Your task to perform on an android device: Clear the cart on amazon. Add "dell xps" to the cart on amazon, then select checkout. Image 0: 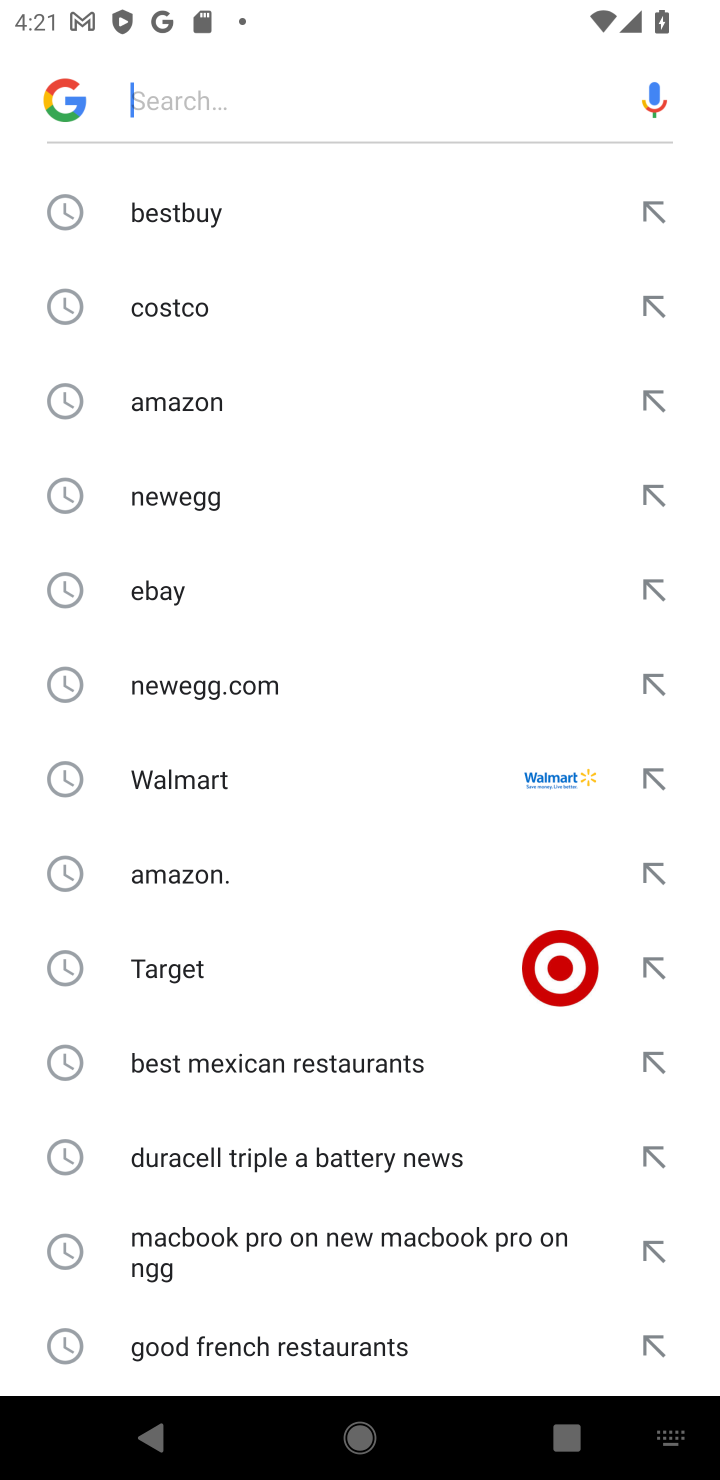
Step 0: type "amazon.com"
Your task to perform on an android device: Clear the cart on amazon. Add "dell xps" to the cart on amazon, then select checkout. Image 1: 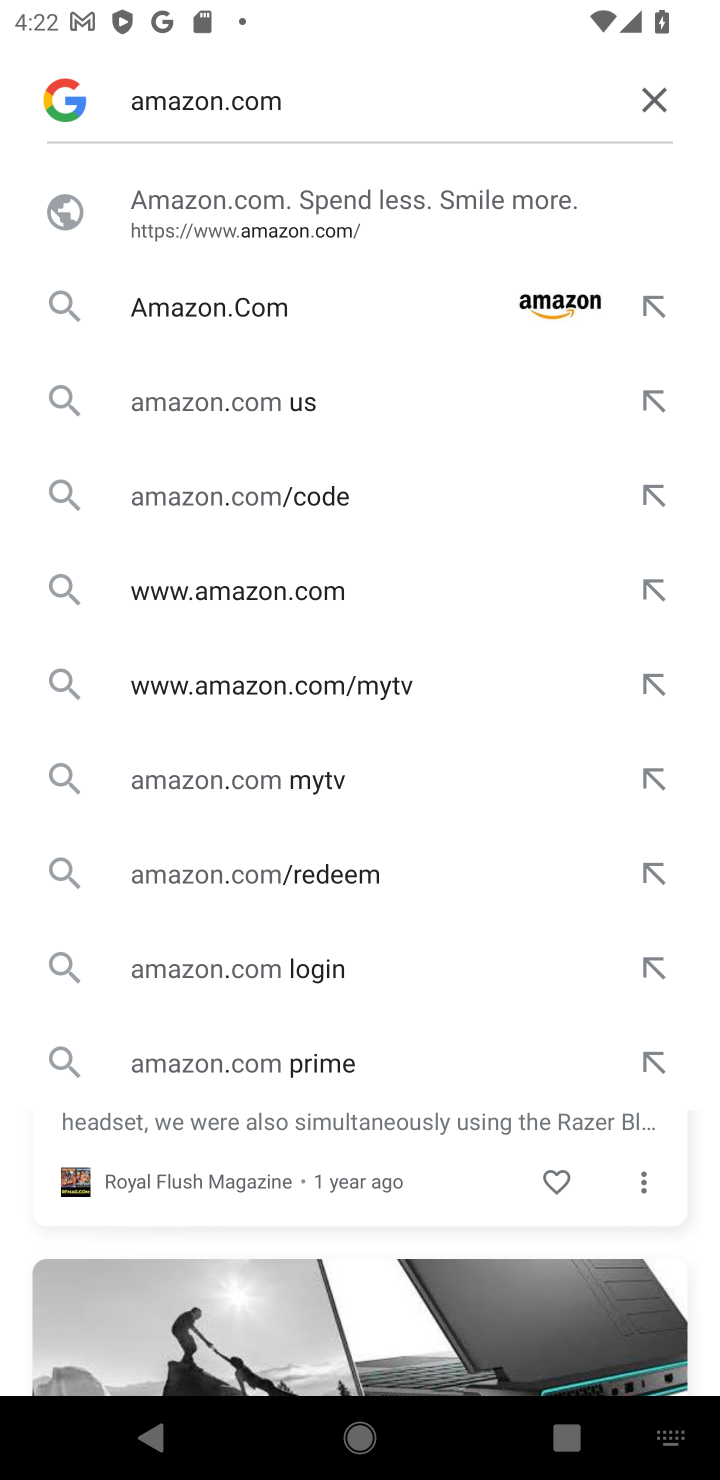
Step 1: press enter
Your task to perform on an android device: Clear the cart on amazon. Add "dell xps" to the cart on amazon, then select checkout. Image 2: 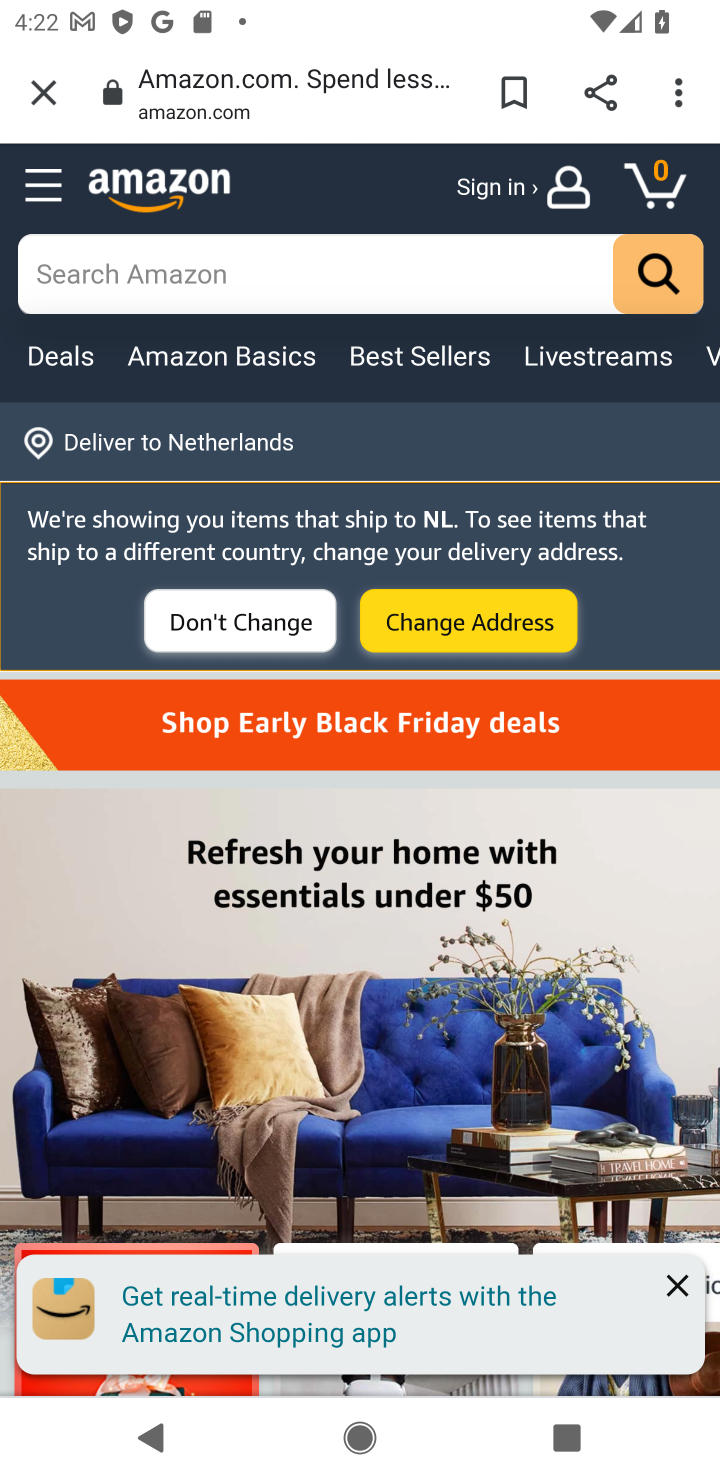
Step 2: click (651, 186)
Your task to perform on an android device: Clear the cart on amazon. Add "dell xps" to the cart on amazon, then select checkout. Image 3: 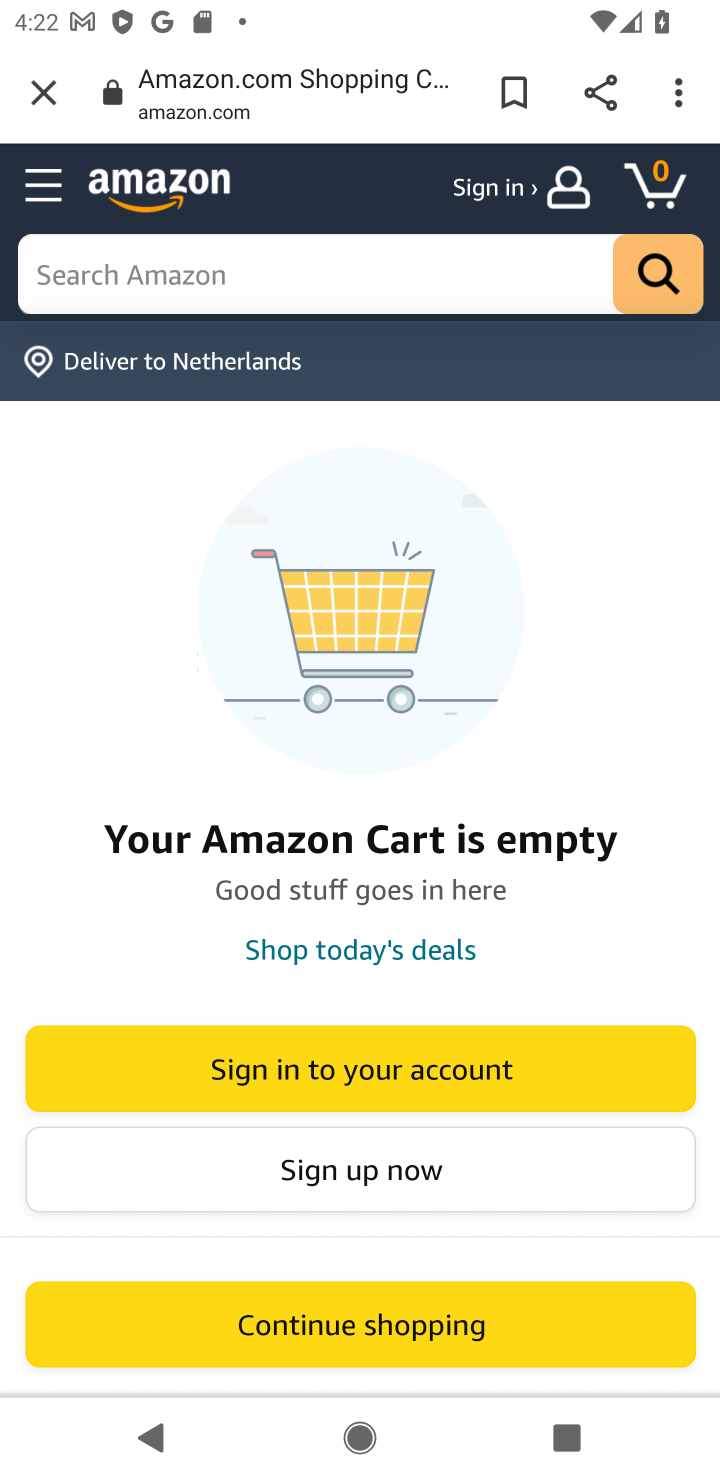
Step 3: click (339, 272)
Your task to perform on an android device: Clear the cart on amazon. Add "dell xps" to the cart on amazon, then select checkout. Image 4: 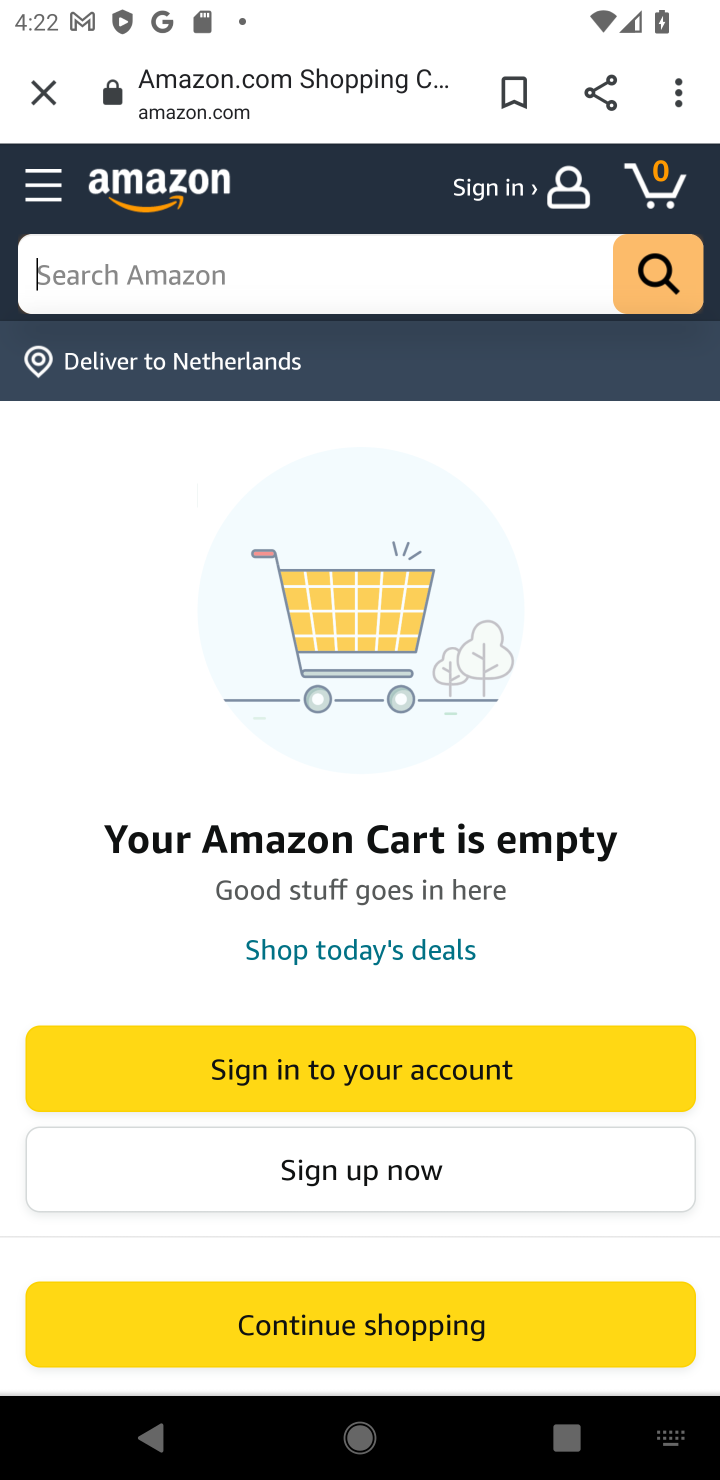
Step 4: type "dell xps"
Your task to perform on an android device: Clear the cart on amazon. Add "dell xps" to the cart on amazon, then select checkout. Image 5: 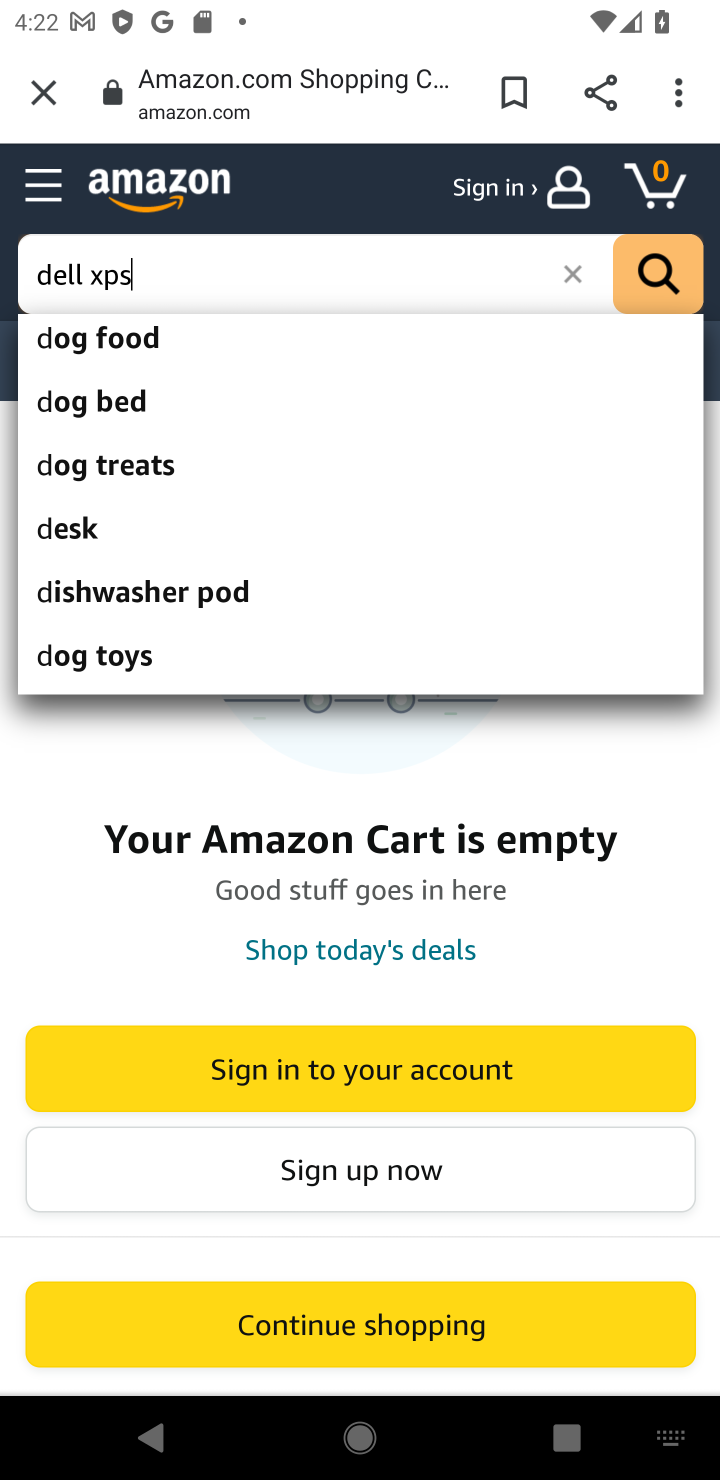
Step 5: press enter
Your task to perform on an android device: Clear the cart on amazon. Add "dell xps" to the cart on amazon, then select checkout. Image 6: 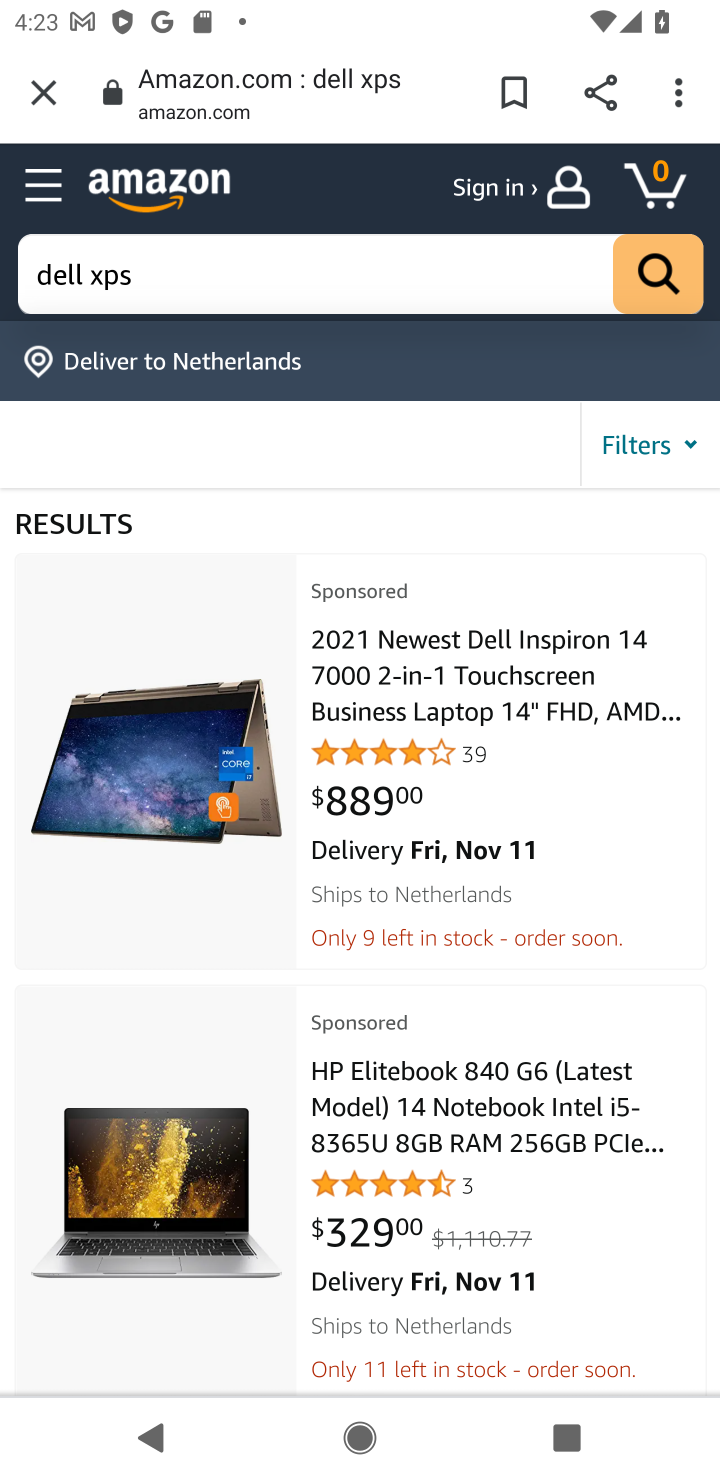
Step 6: drag from (509, 1311) to (540, 309)
Your task to perform on an android device: Clear the cart on amazon. Add "dell xps" to the cart on amazon, then select checkout. Image 7: 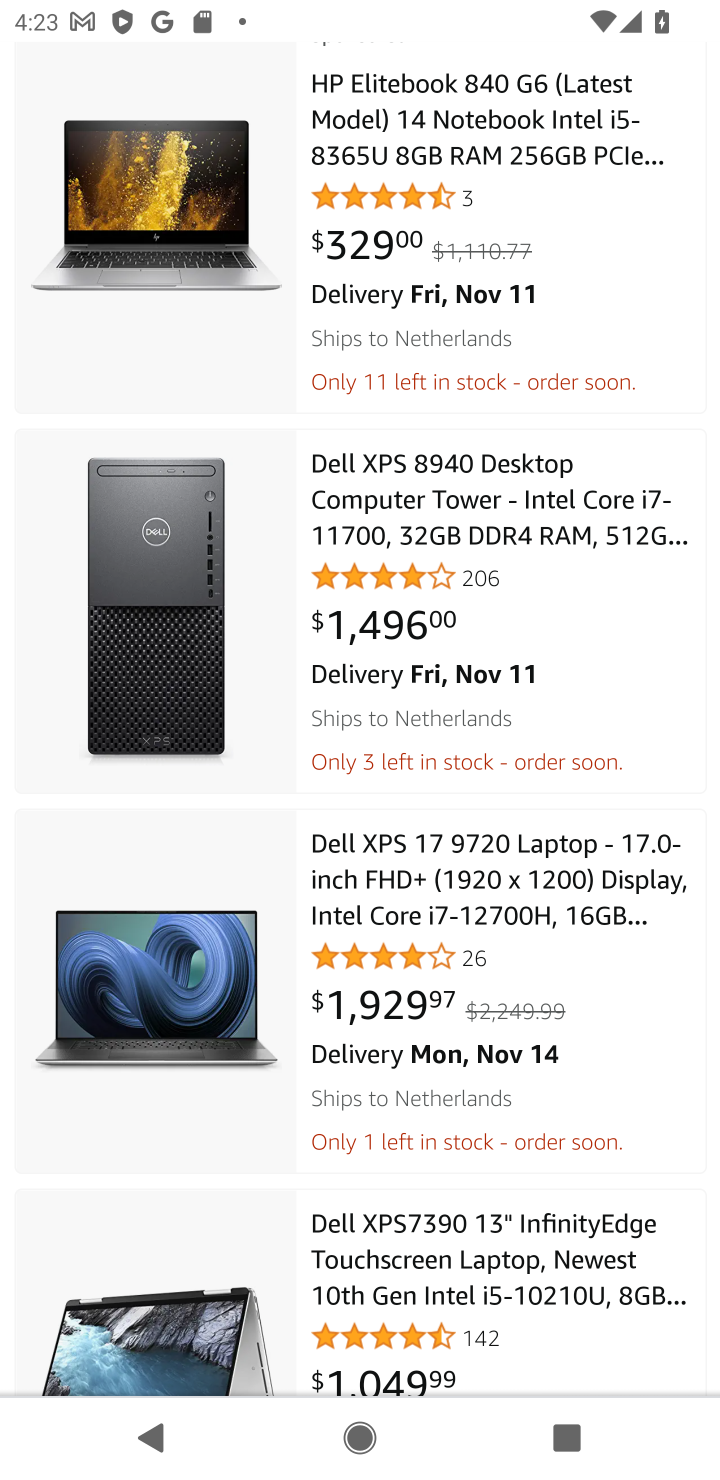
Step 7: click (424, 527)
Your task to perform on an android device: Clear the cart on amazon. Add "dell xps" to the cart on amazon, then select checkout. Image 8: 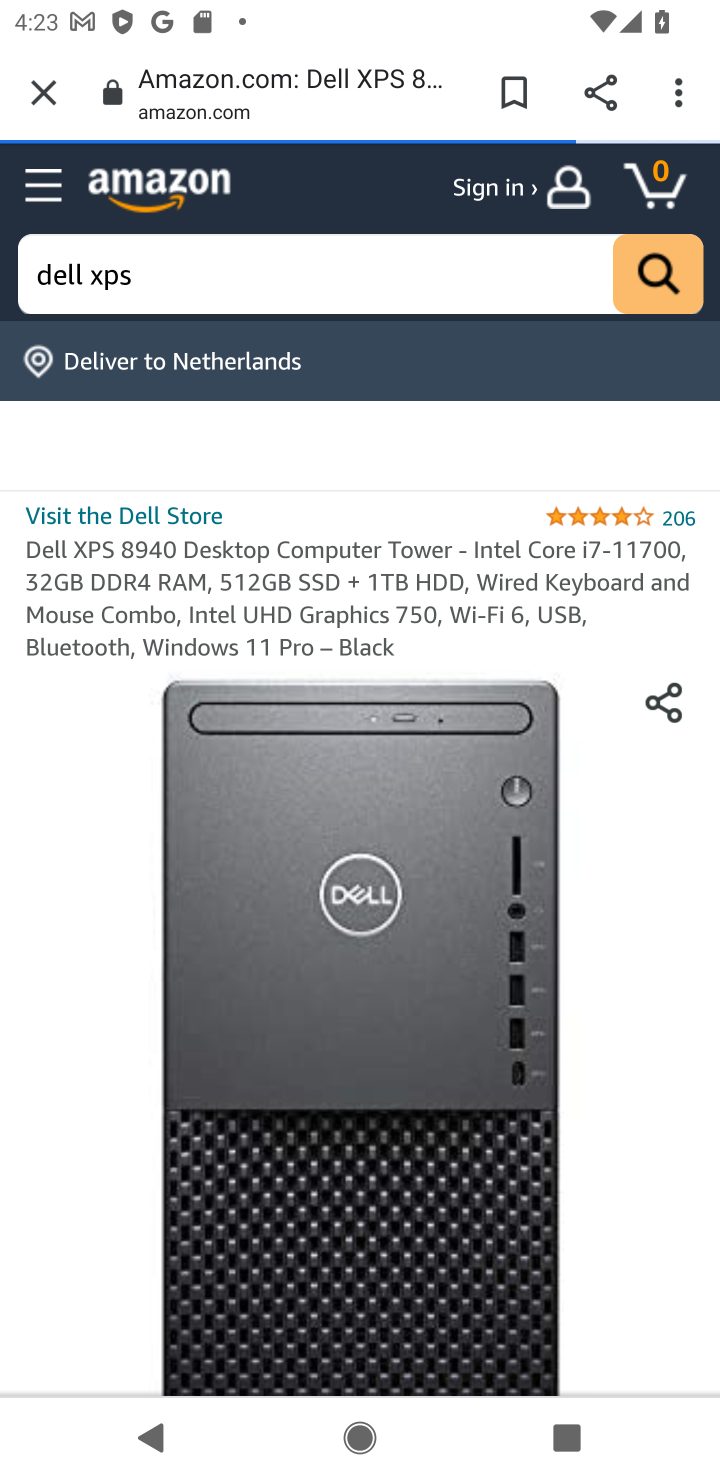
Step 8: drag from (491, 1095) to (476, 398)
Your task to perform on an android device: Clear the cart on amazon. Add "dell xps" to the cart on amazon, then select checkout. Image 9: 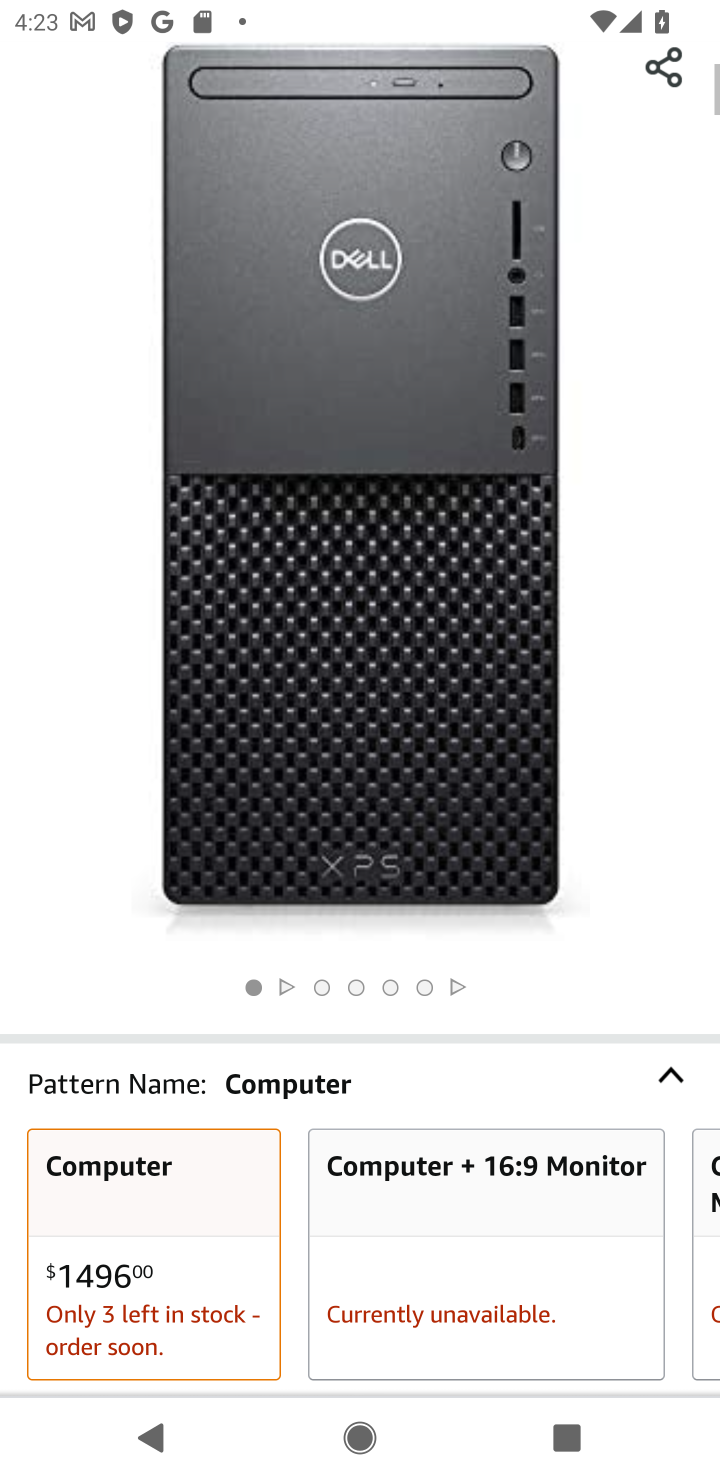
Step 9: drag from (493, 931) to (525, 212)
Your task to perform on an android device: Clear the cart on amazon. Add "dell xps" to the cart on amazon, then select checkout. Image 10: 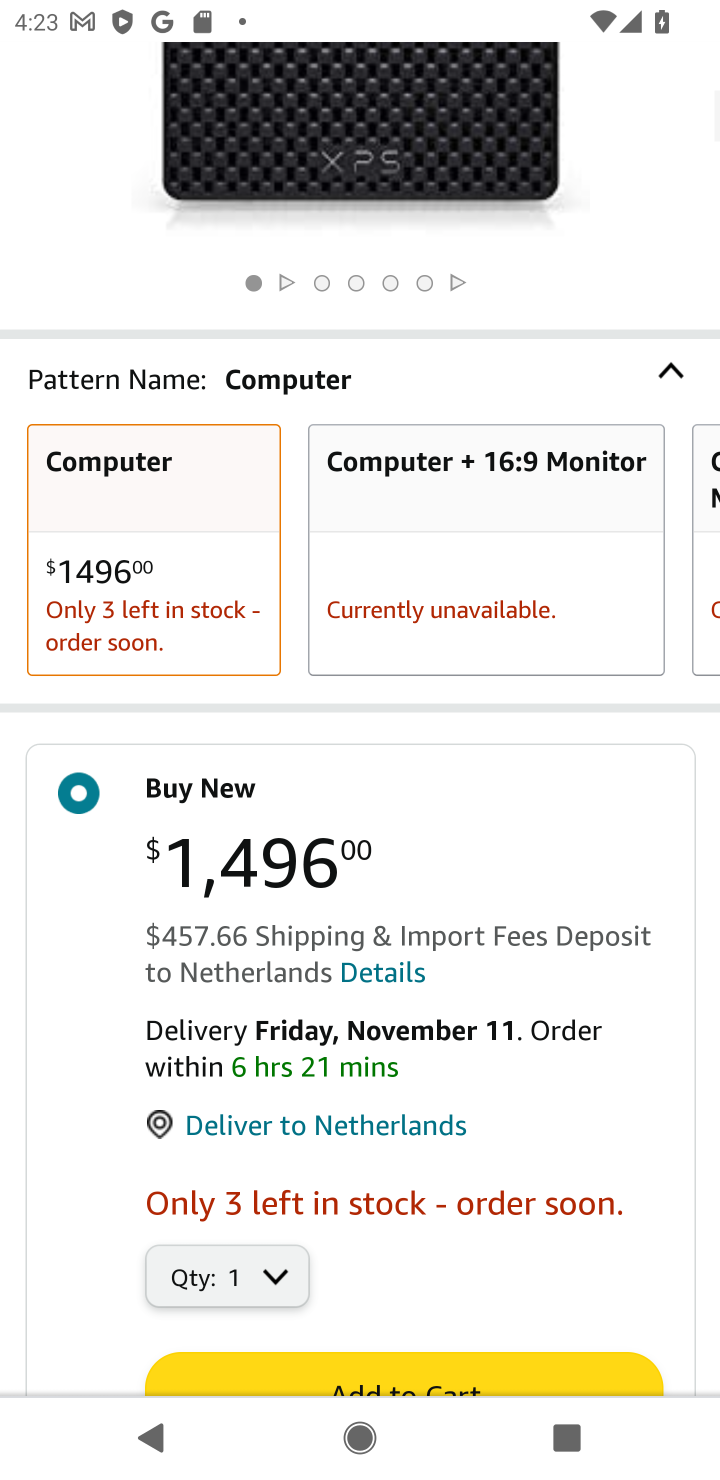
Step 10: drag from (535, 995) to (568, 271)
Your task to perform on an android device: Clear the cart on amazon. Add "dell xps" to the cart on amazon, then select checkout. Image 11: 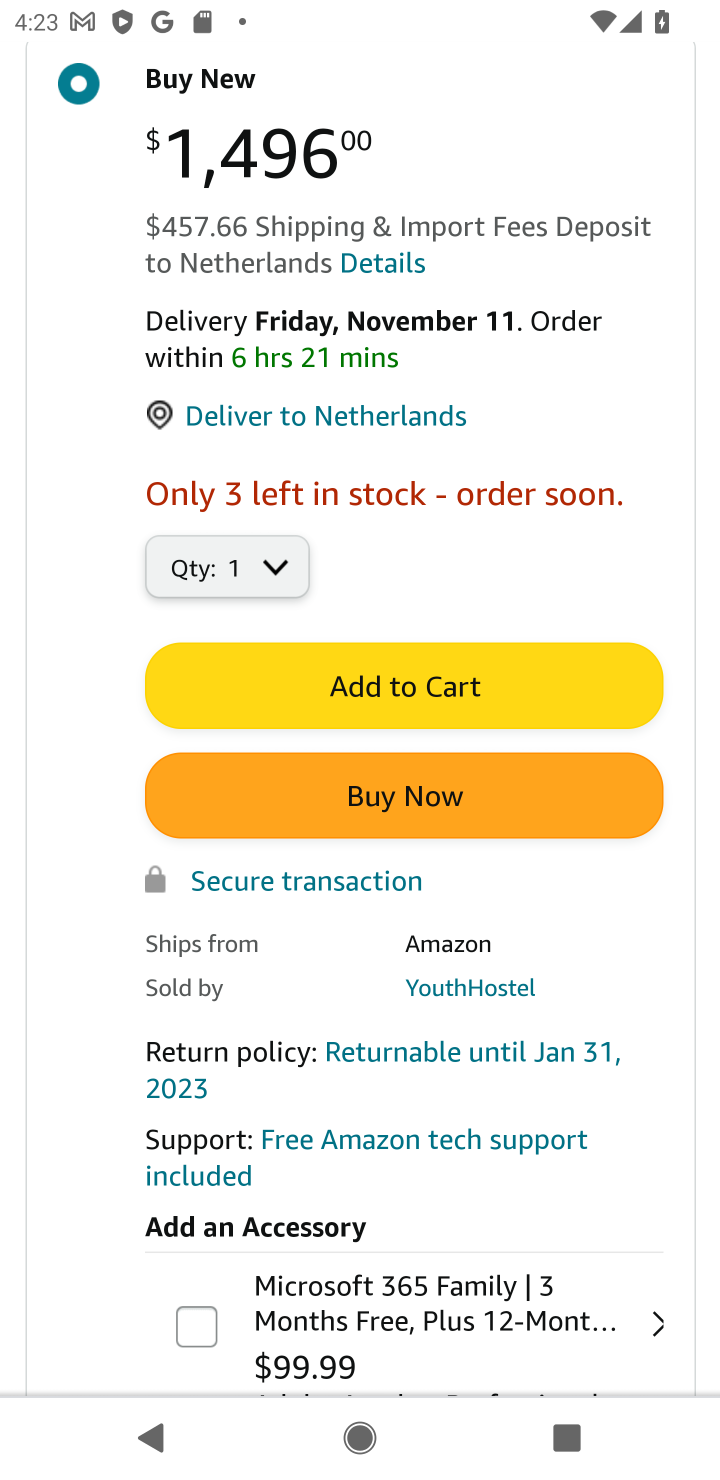
Step 11: click (437, 658)
Your task to perform on an android device: Clear the cart on amazon. Add "dell xps" to the cart on amazon, then select checkout. Image 12: 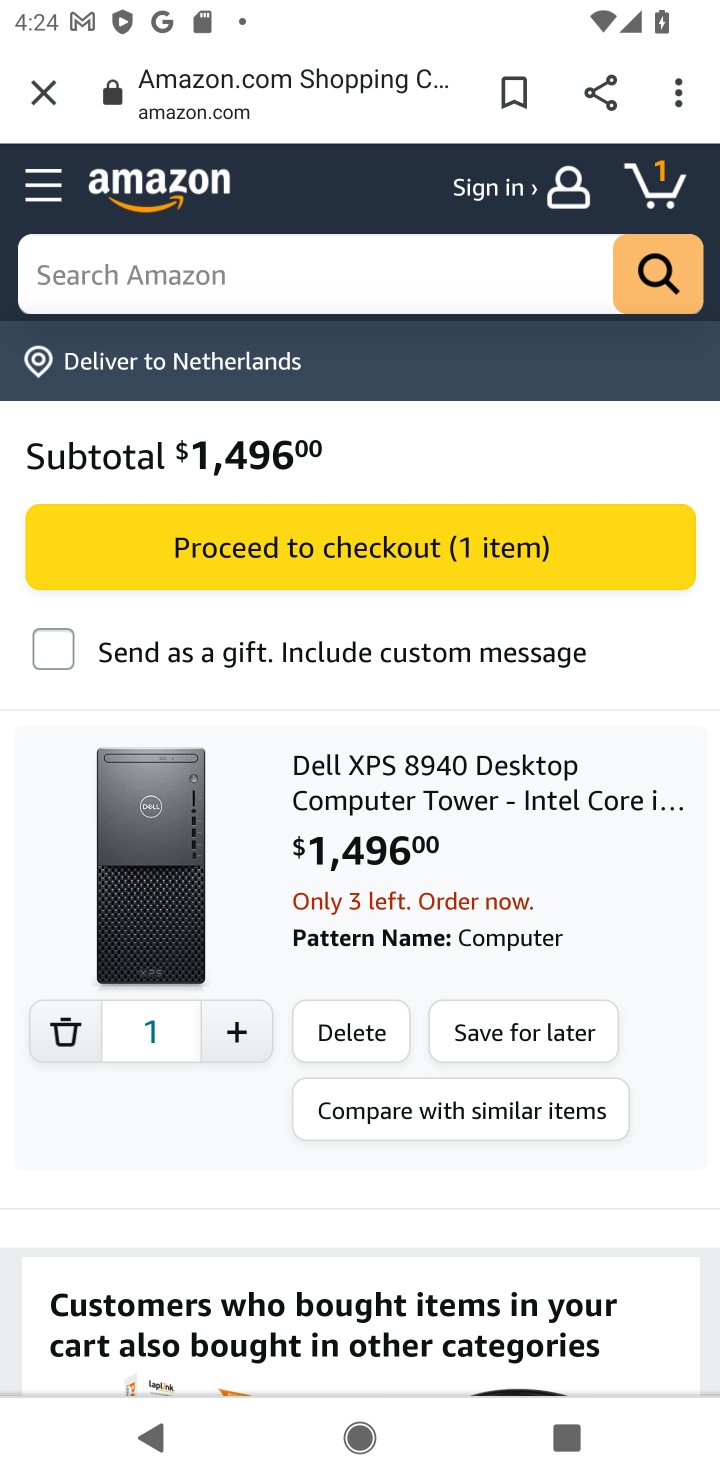
Step 12: click (450, 566)
Your task to perform on an android device: Clear the cart on amazon. Add "dell xps" to the cart on amazon, then select checkout. Image 13: 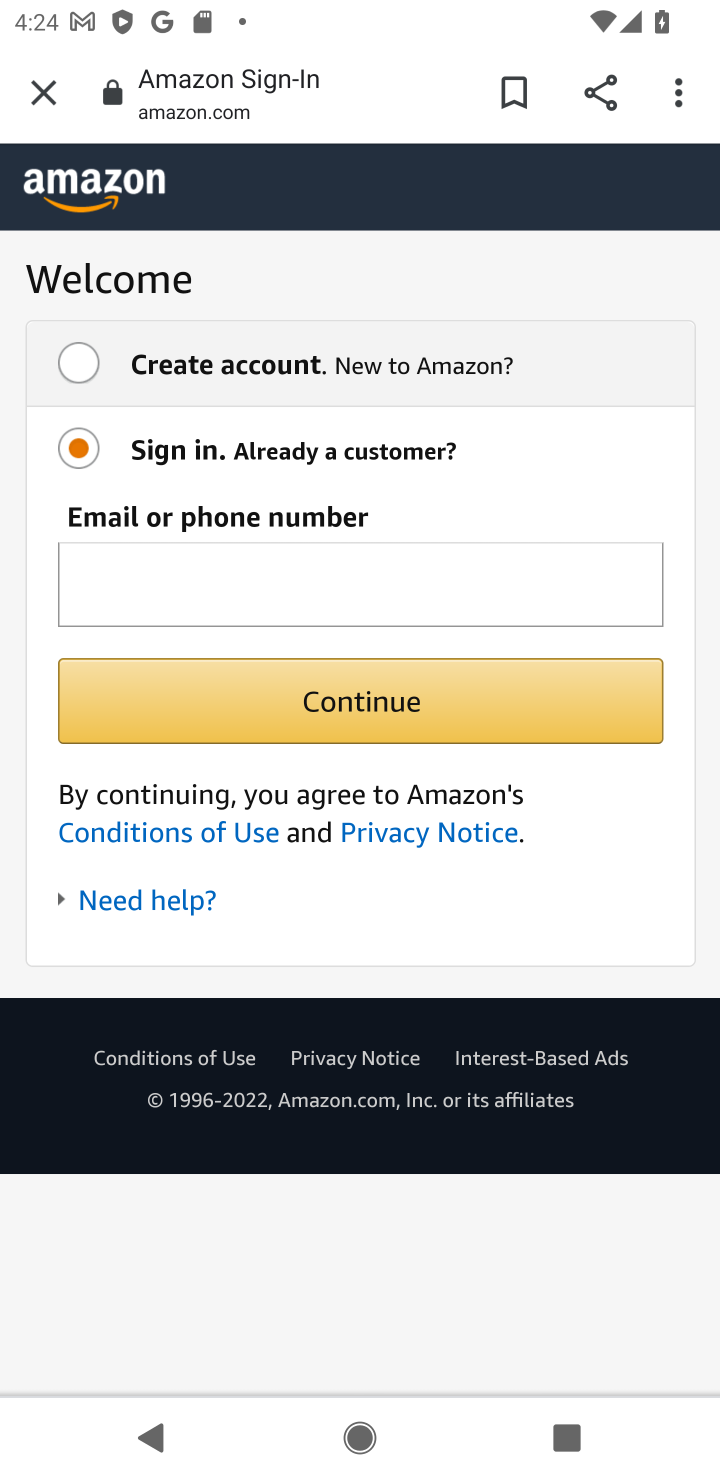
Step 13: task complete